Your task to perform on an android device: toggle javascript in the chrome app Image 0: 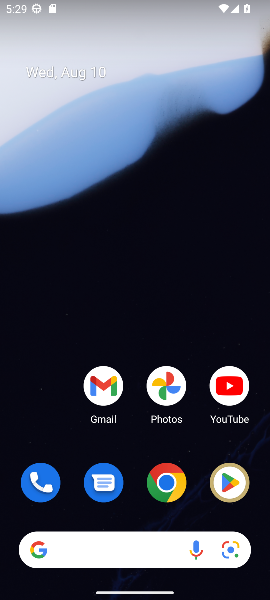
Step 0: click (175, 481)
Your task to perform on an android device: toggle javascript in the chrome app Image 1: 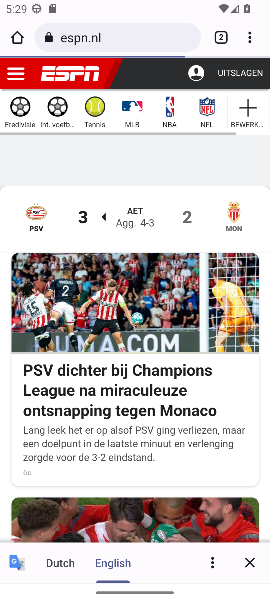
Step 1: click (248, 35)
Your task to perform on an android device: toggle javascript in the chrome app Image 2: 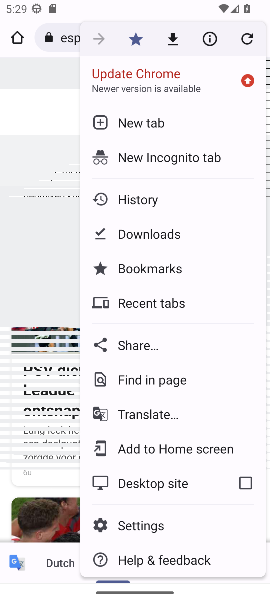
Step 2: click (140, 516)
Your task to perform on an android device: toggle javascript in the chrome app Image 3: 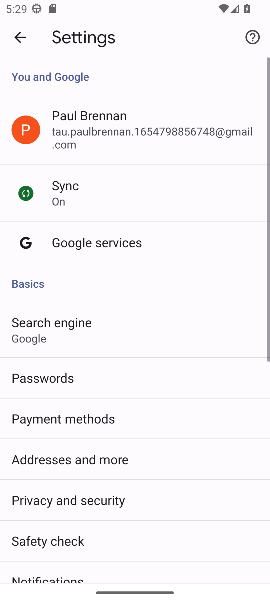
Step 3: drag from (175, 420) to (207, 78)
Your task to perform on an android device: toggle javascript in the chrome app Image 4: 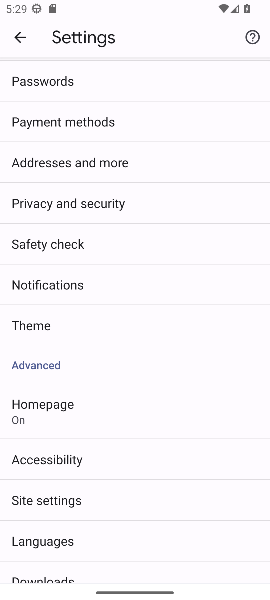
Step 4: click (99, 497)
Your task to perform on an android device: toggle javascript in the chrome app Image 5: 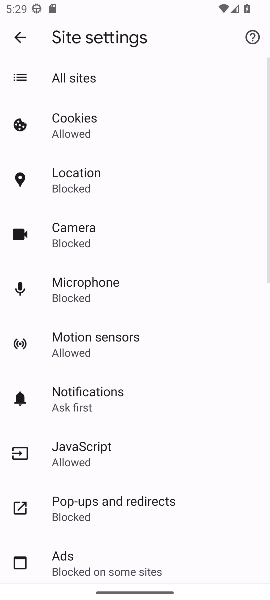
Step 5: click (107, 448)
Your task to perform on an android device: toggle javascript in the chrome app Image 6: 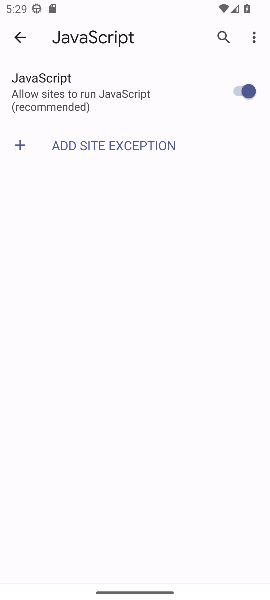
Step 6: click (246, 93)
Your task to perform on an android device: toggle javascript in the chrome app Image 7: 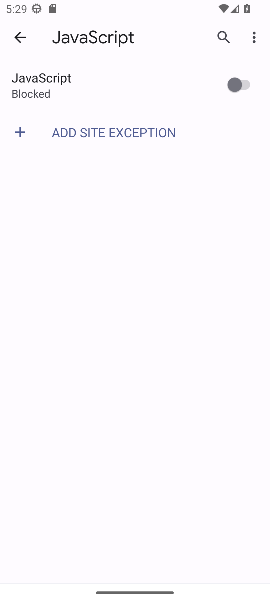
Step 7: task complete